Your task to perform on an android device: Open wifi settings Image 0: 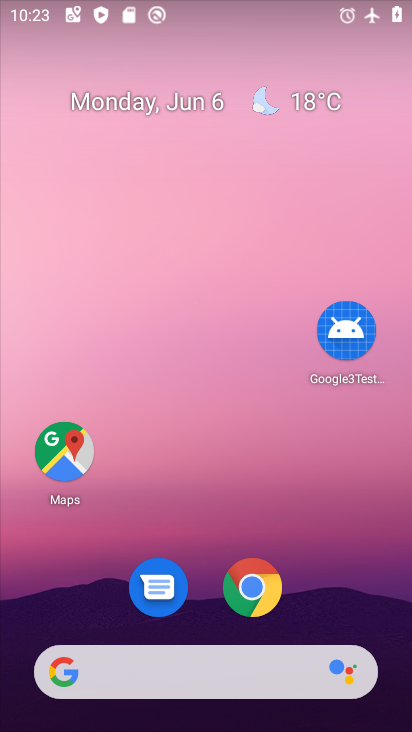
Step 0: drag from (335, 603) to (358, 94)
Your task to perform on an android device: Open wifi settings Image 1: 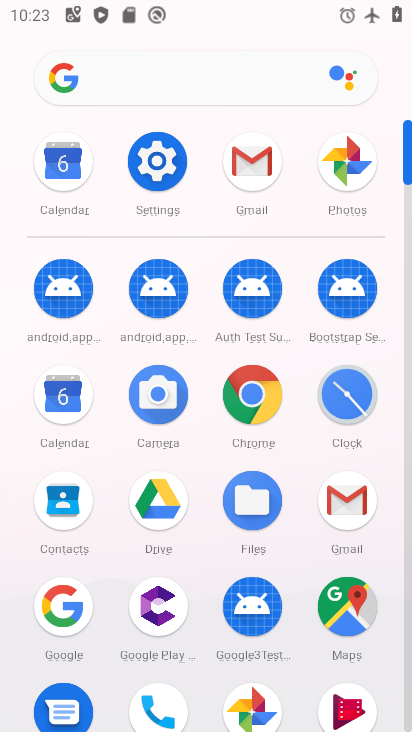
Step 1: click (156, 153)
Your task to perform on an android device: Open wifi settings Image 2: 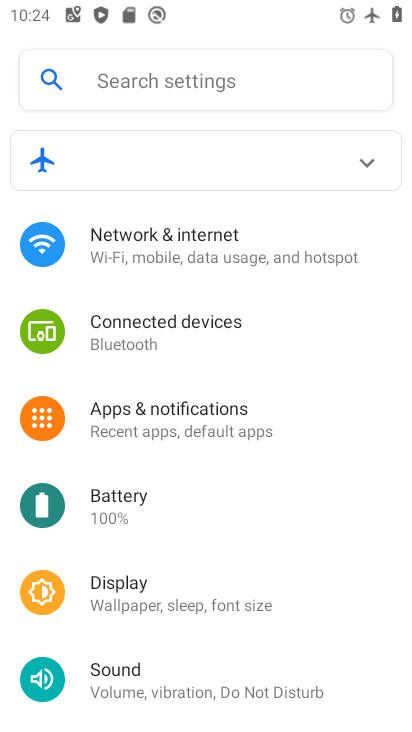
Step 2: click (238, 256)
Your task to perform on an android device: Open wifi settings Image 3: 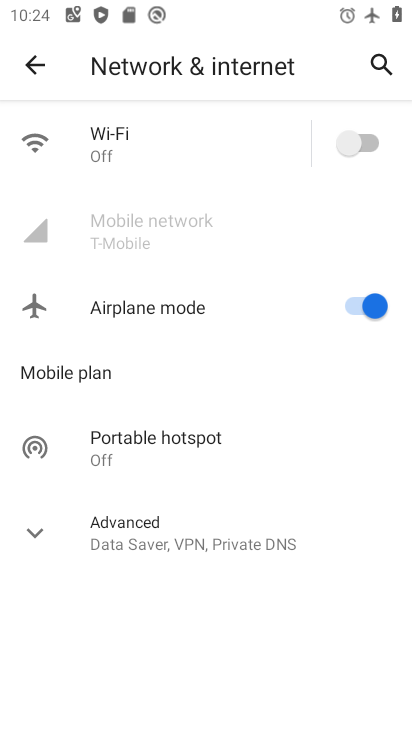
Step 3: click (182, 146)
Your task to perform on an android device: Open wifi settings Image 4: 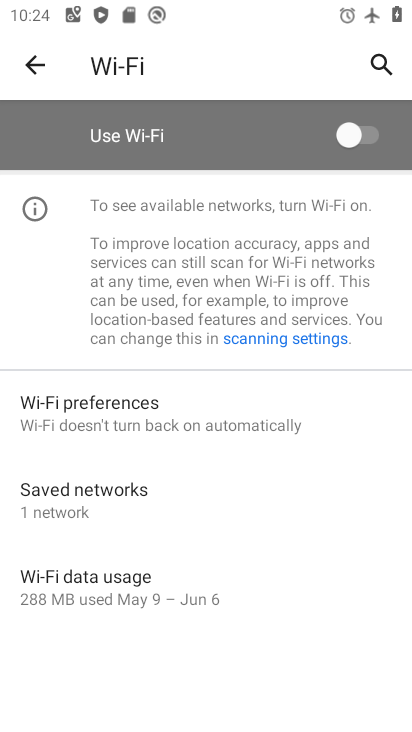
Step 4: click (374, 132)
Your task to perform on an android device: Open wifi settings Image 5: 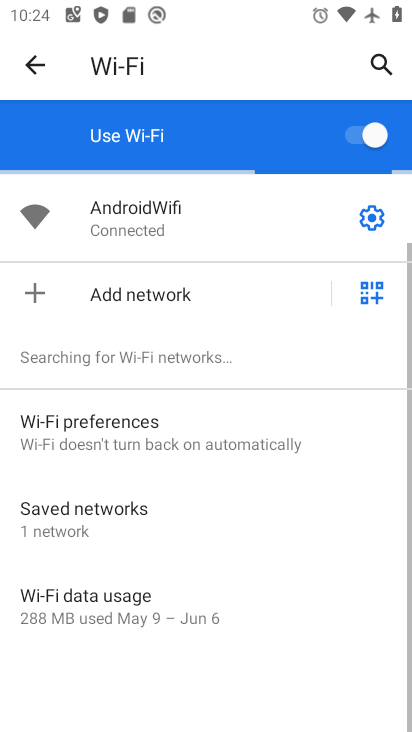
Step 5: click (367, 211)
Your task to perform on an android device: Open wifi settings Image 6: 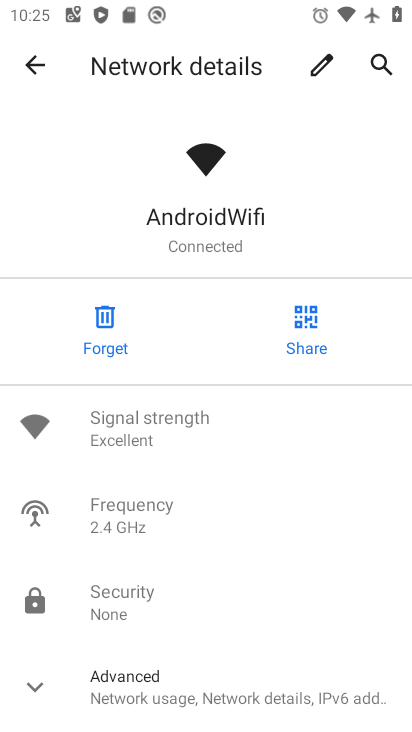
Step 6: task complete